Your task to perform on an android device: make emails show in primary in the gmail app Image 0: 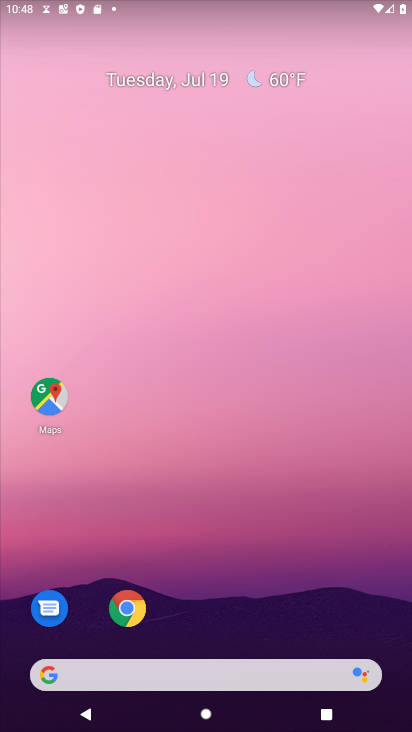
Step 0: drag from (253, 613) to (269, 259)
Your task to perform on an android device: make emails show in primary in the gmail app Image 1: 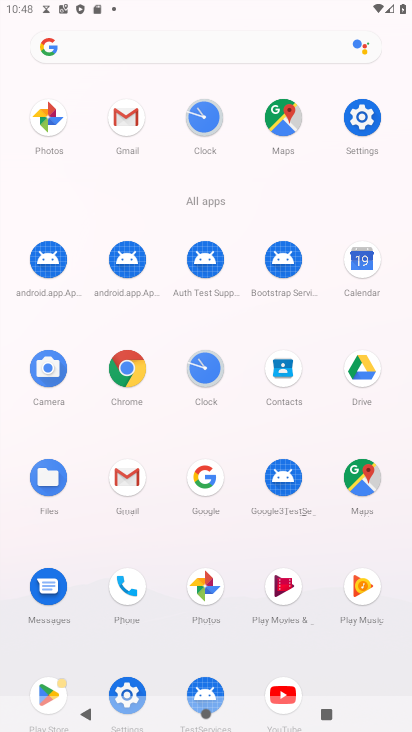
Step 1: click (129, 479)
Your task to perform on an android device: make emails show in primary in the gmail app Image 2: 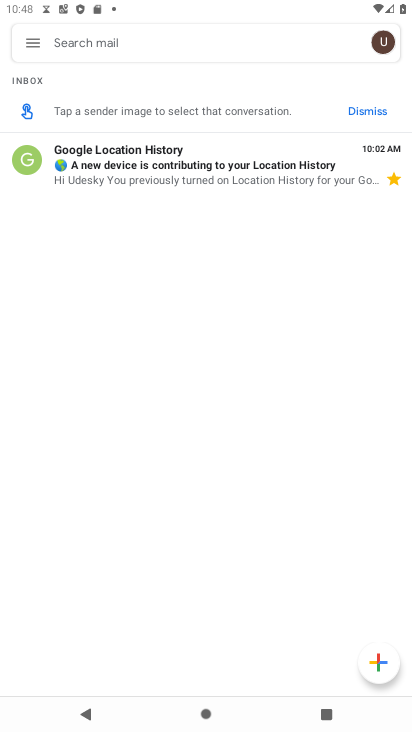
Step 2: click (29, 50)
Your task to perform on an android device: make emails show in primary in the gmail app Image 3: 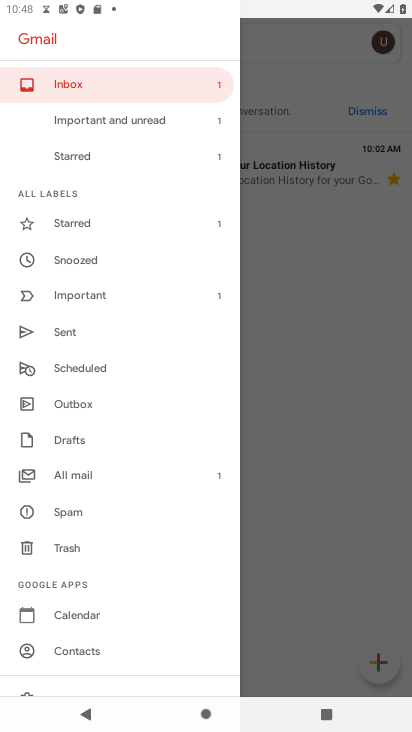
Step 3: drag from (124, 632) to (187, 290)
Your task to perform on an android device: make emails show in primary in the gmail app Image 4: 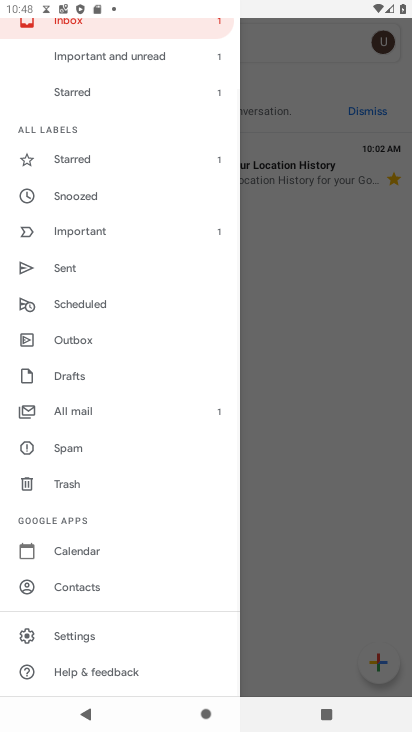
Step 4: click (113, 631)
Your task to perform on an android device: make emails show in primary in the gmail app Image 5: 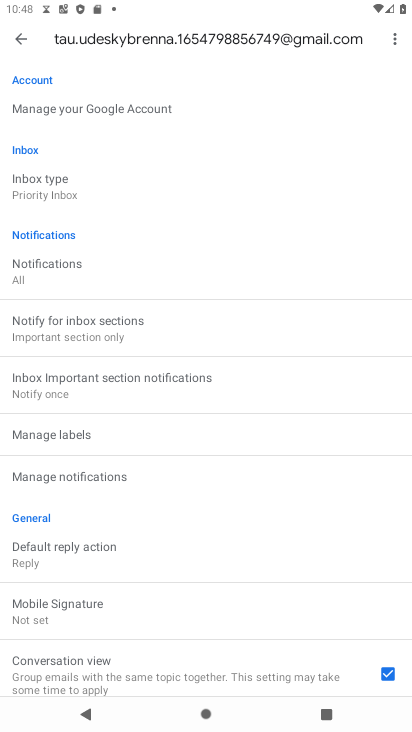
Step 5: click (46, 171)
Your task to perform on an android device: make emails show in primary in the gmail app Image 6: 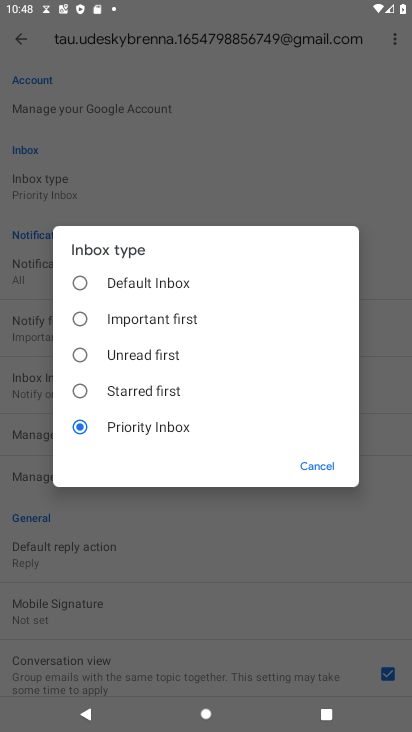
Step 6: click (90, 278)
Your task to perform on an android device: make emails show in primary in the gmail app Image 7: 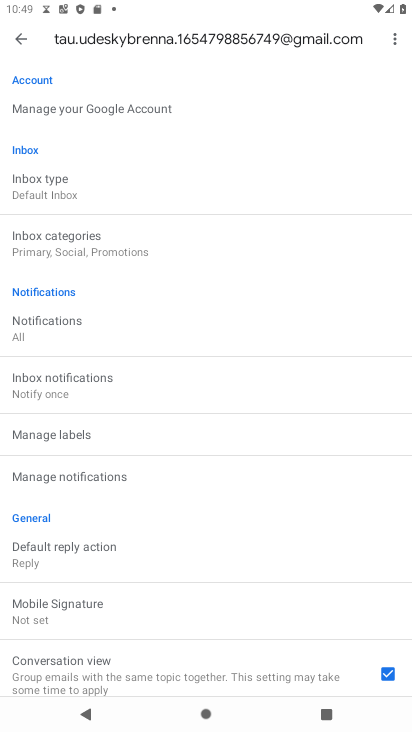
Step 7: task complete